Your task to perform on an android device: turn vacation reply on in the gmail app Image 0: 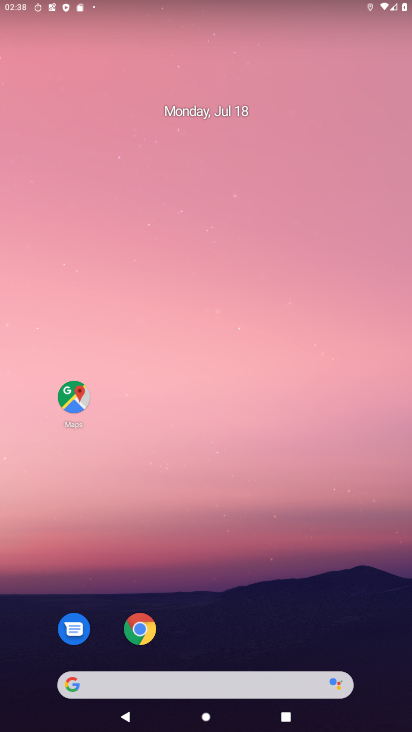
Step 0: drag from (215, 645) to (252, 3)
Your task to perform on an android device: turn vacation reply on in the gmail app Image 1: 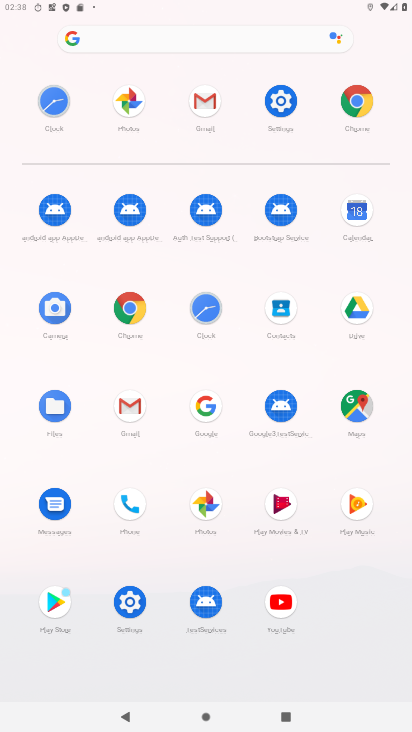
Step 1: click (126, 406)
Your task to perform on an android device: turn vacation reply on in the gmail app Image 2: 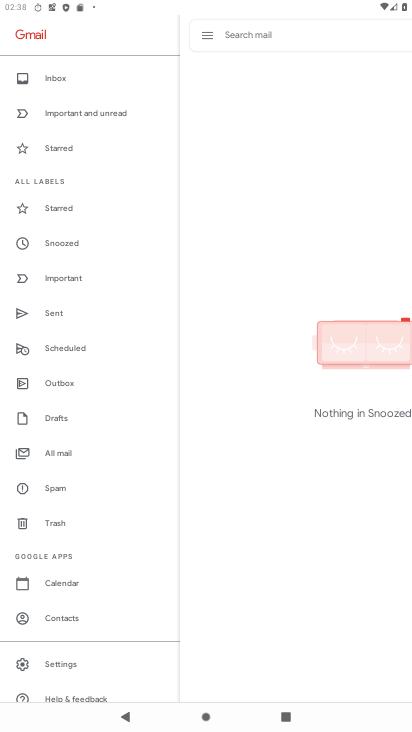
Step 2: click (80, 656)
Your task to perform on an android device: turn vacation reply on in the gmail app Image 3: 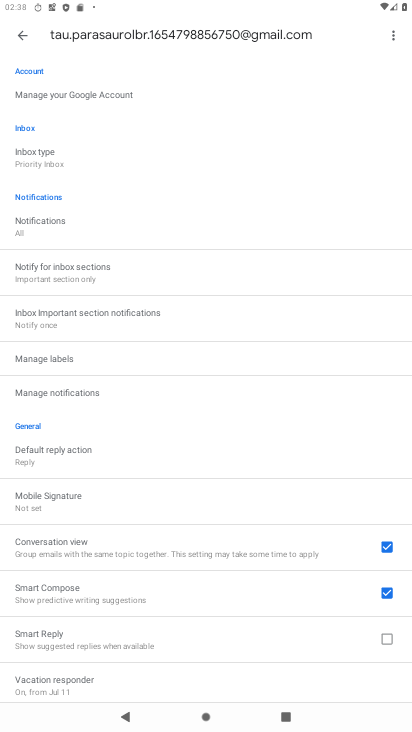
Step 3: click (129, 673)
Your task to perform on an android device: turn vacation reply on in the gmail app Image 4: 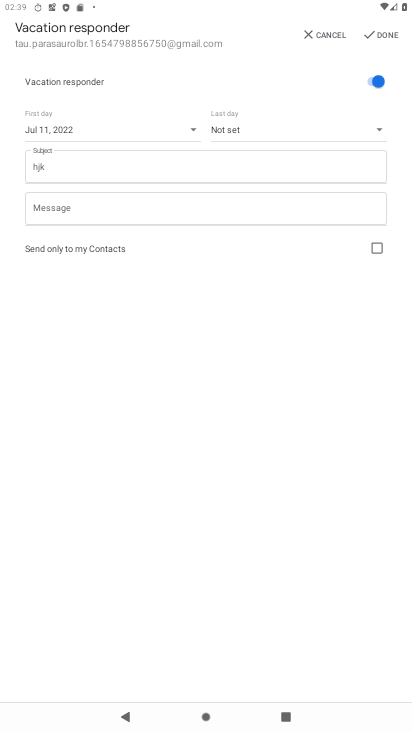
Step 4: task complete